Your task to perform on an android device: Open the calendar and show me this week's events? Image 0: 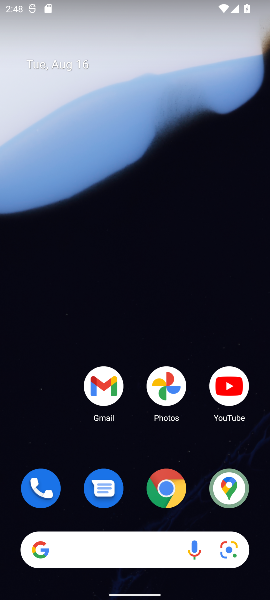
Step 0: drag from (60, 396) to (112, 91)
Your task to perform on an android device: Open the calendar and show me this week's events? Image 1: 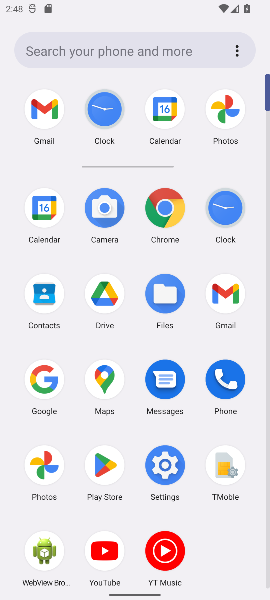
Step 1: task complete